Your task to perform on an android device: Go to Amazon Image 0: 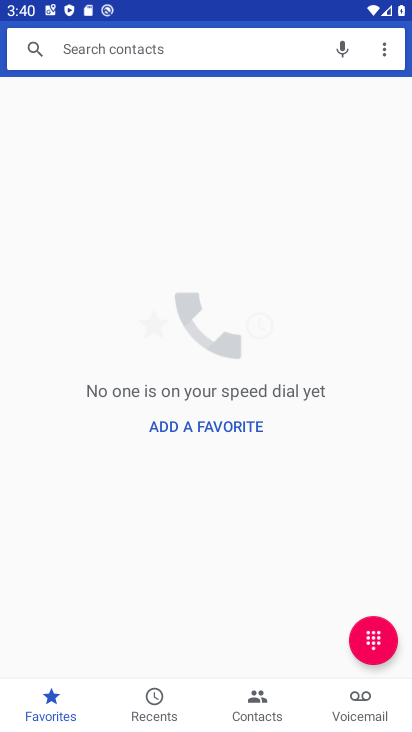
Step 0: press back button
Your task to perform on an android device: Go to Amazon Image 1: 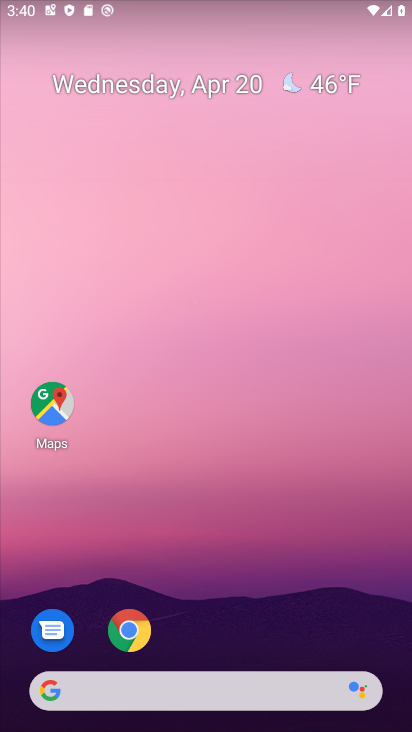
Step 1: click (123, 633)
Your task to perform on an android device: Go to Amazon Image 2: 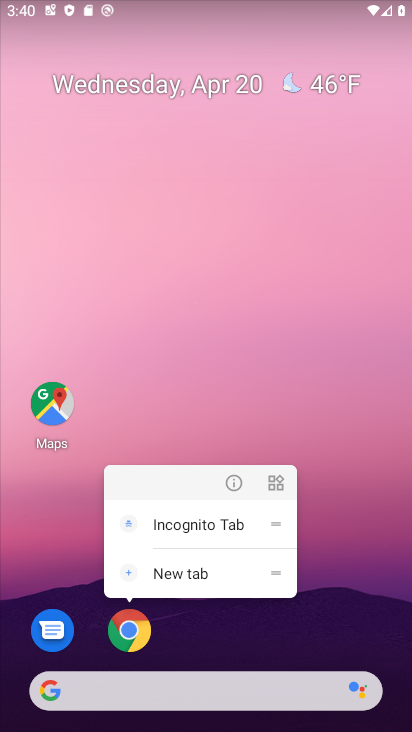
Step 2: click (122, 634)
Your task to perform on an android device: Go to Amazon Image 3: 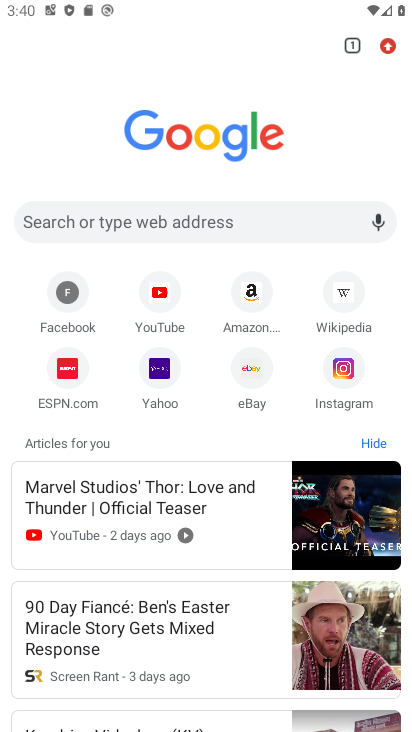
Step 3: click (250, 294)
Your task to perform on an android device: Go to Amazon Image 4: 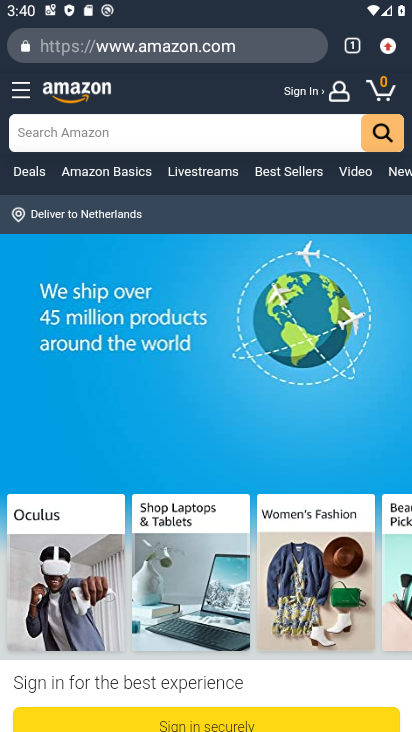
Step 4: task complete